Your task to perform on an android device: Empty the shopping cart on amazon. Search for logitech g910 on amazon, select the first entry, add it to the cart, then select checkout. Image 0: 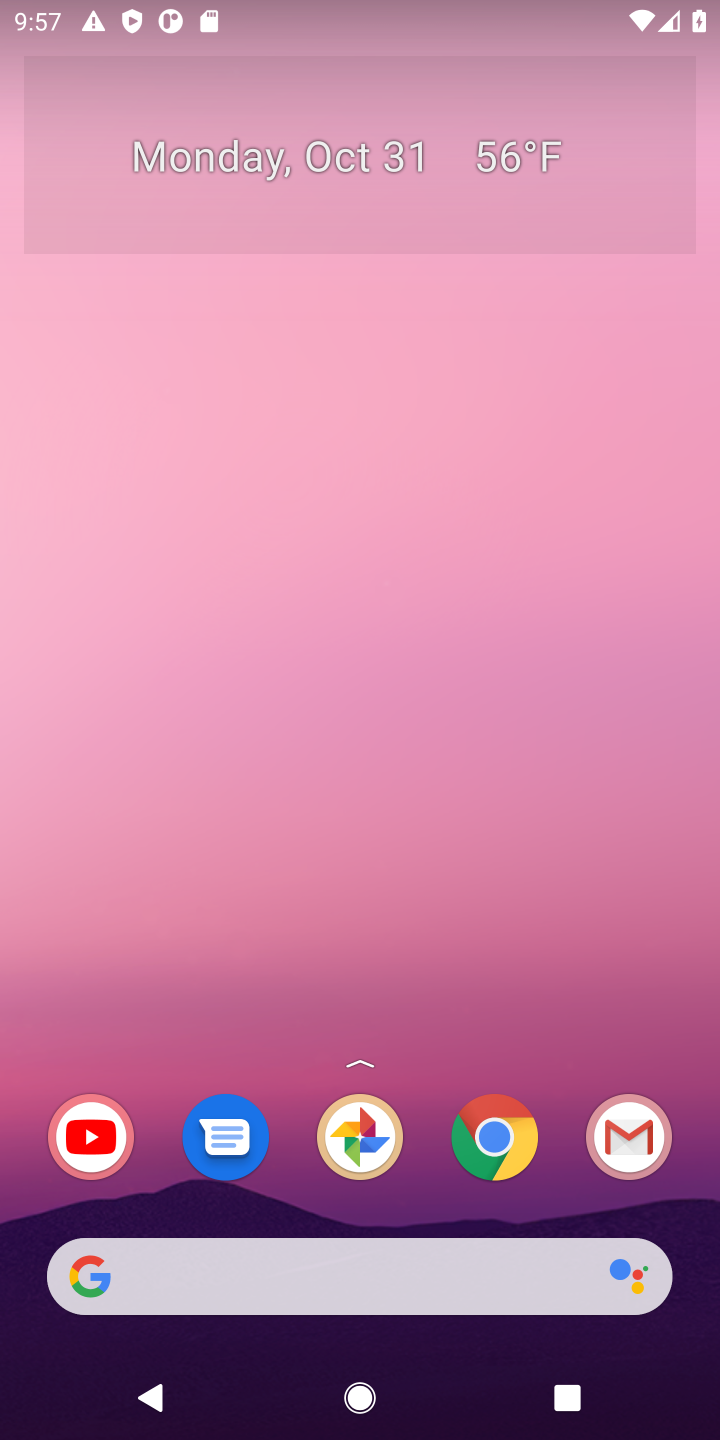
Step 0: click (490, 1140)
Your task to perform on an android device: Empty the shopping cart on amazon. Search for logitech g910 on amazon, select the first entry, add it to the cart, then select checkout. Image 1: 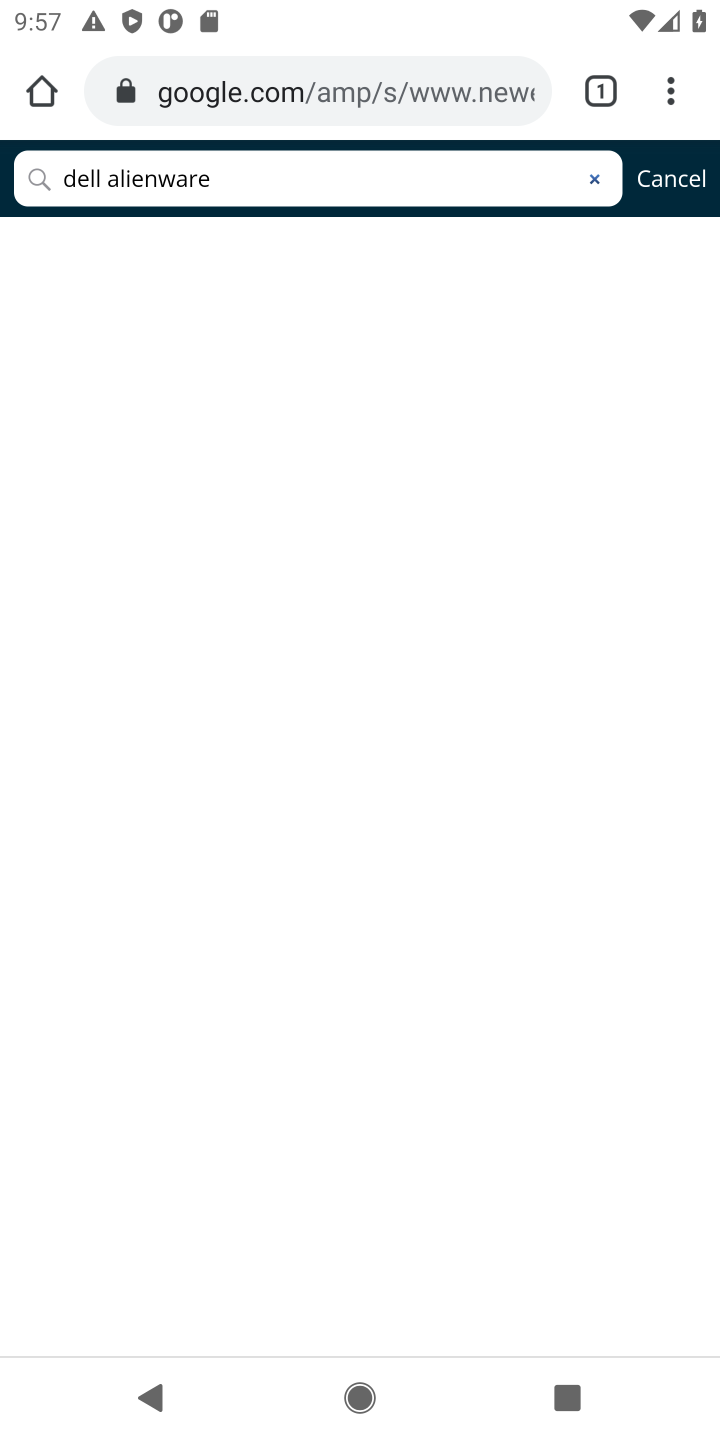
Step 1: click (498, 99)
Your task to perform on an android device: Empty the shopping cart on amazon. Search for logitech g910 on amazon, select the first entry, add it to the cart, then select checkout. Image 2: 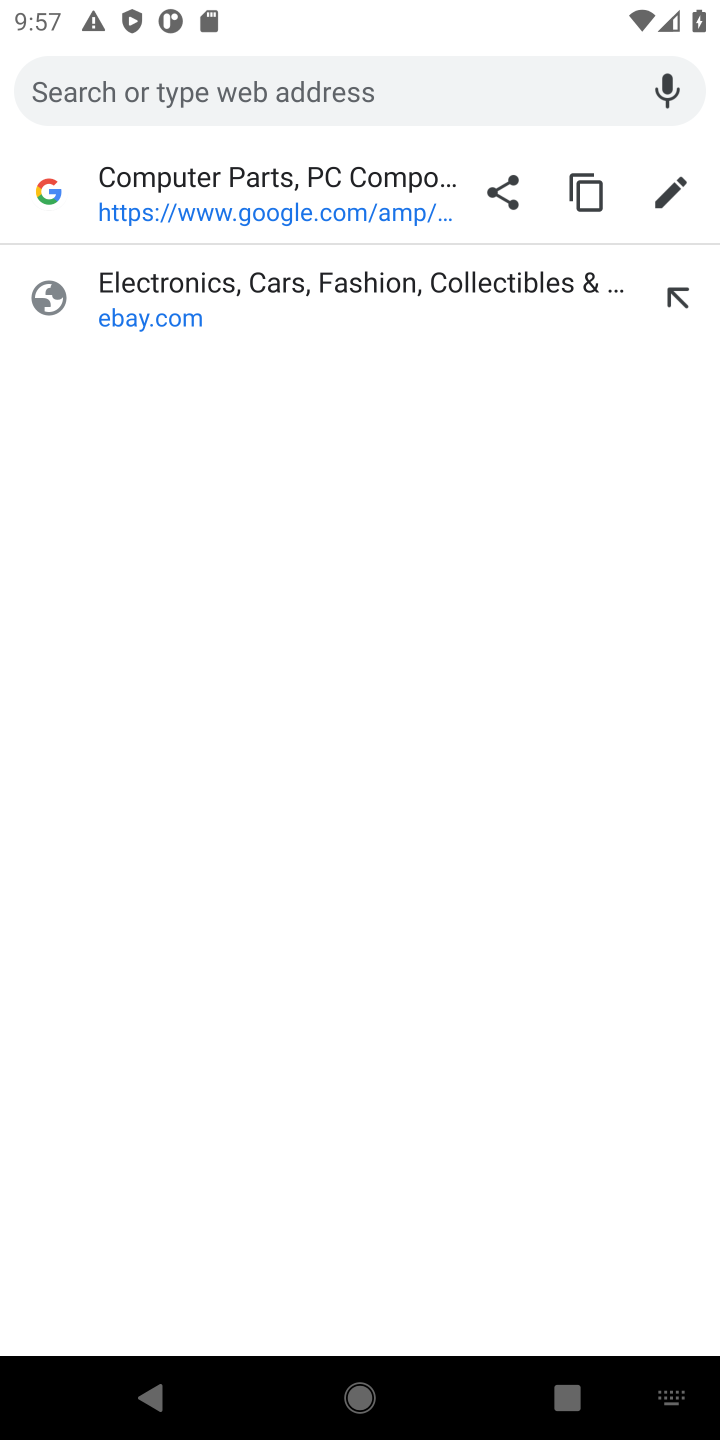
Step 2: type "amazon"
Your task to perform on an android device: Empty the shopping cart on amazon. Search for logitech g910 on amazon, select the first entry, add it to the cart, then select checkout. Image 3: 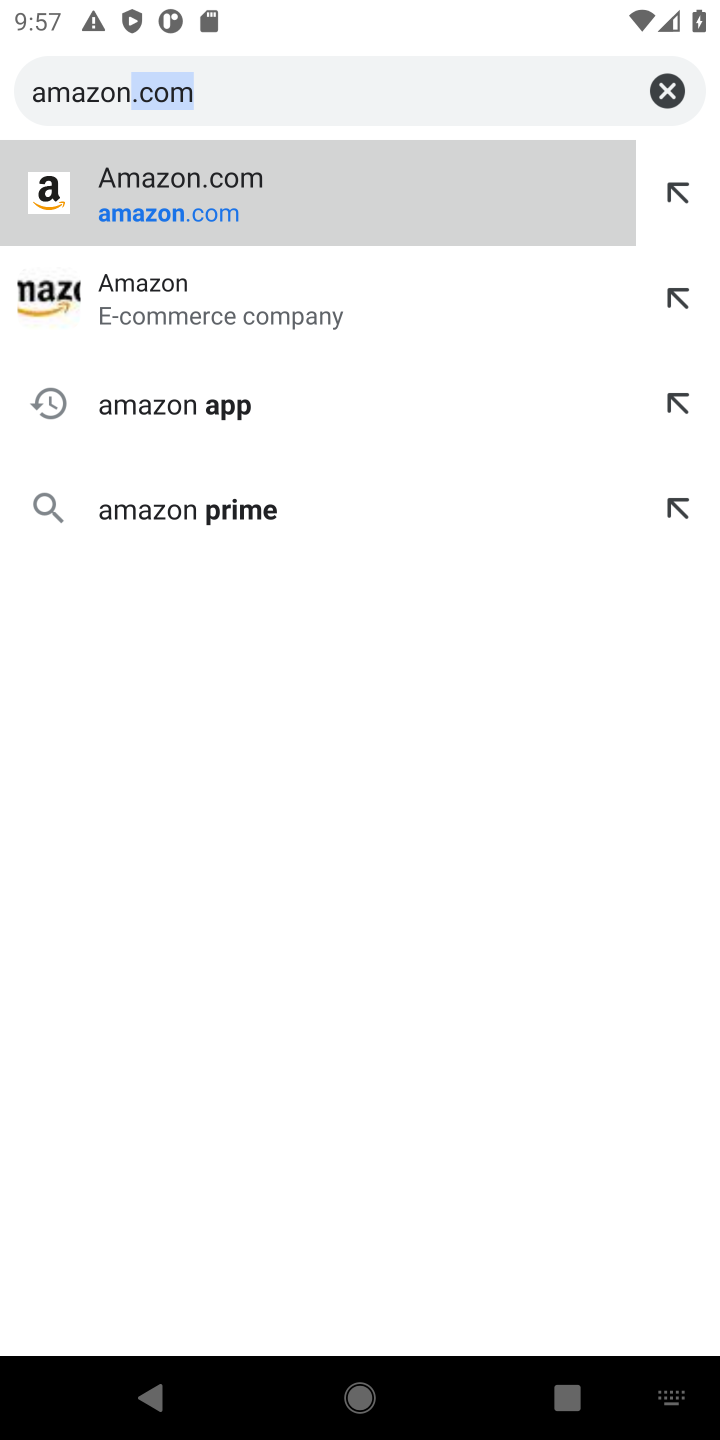
Step 3: click (195, 230)
Your task to perform on an android device: Empty the shopping cart on amazon. Search for logitech g910 on amazon, select the first entry, add it to the cart, then select checkout. Image 4: 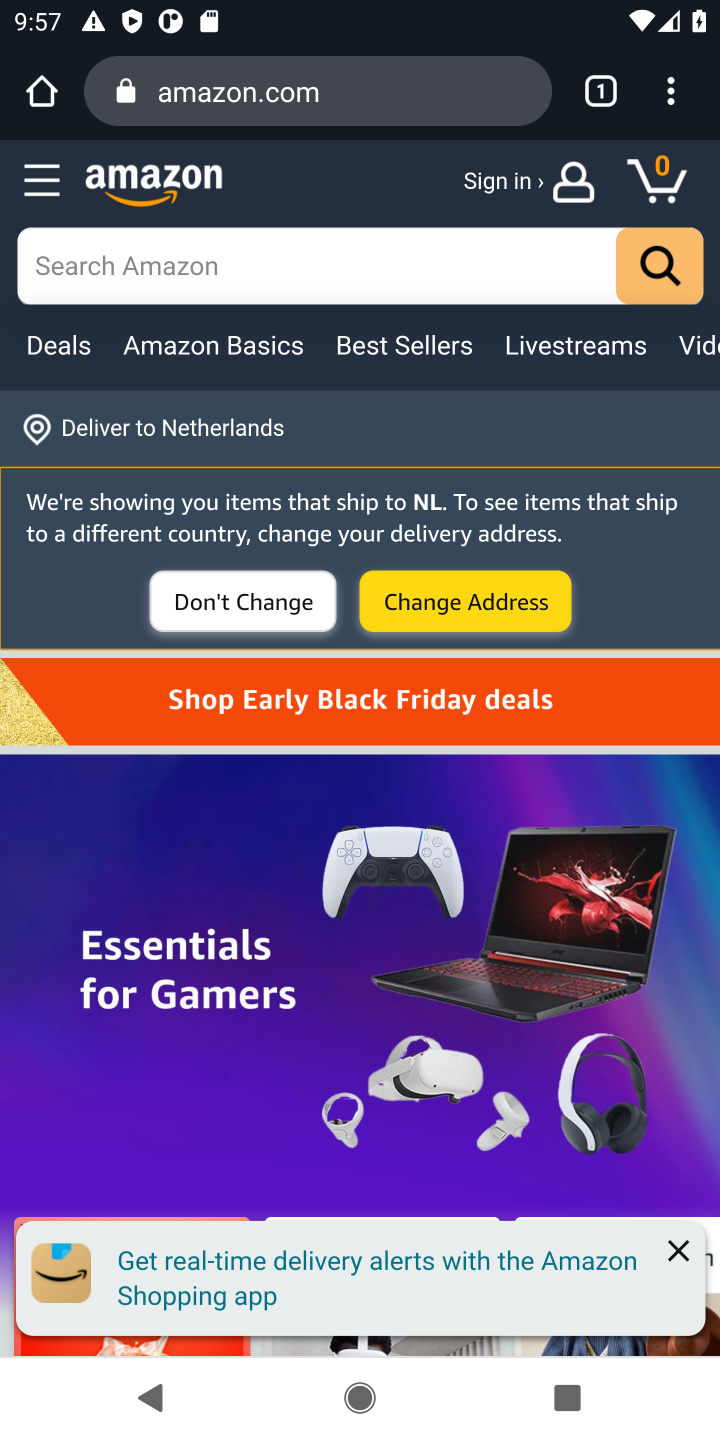
Step 4: click (676, 181)
Your task to perform on an android device: Empty the shopping cart on amazon. Search for logitech g910 on amazon, select the first entry, add it to the cart, then select checkout. Image 5: 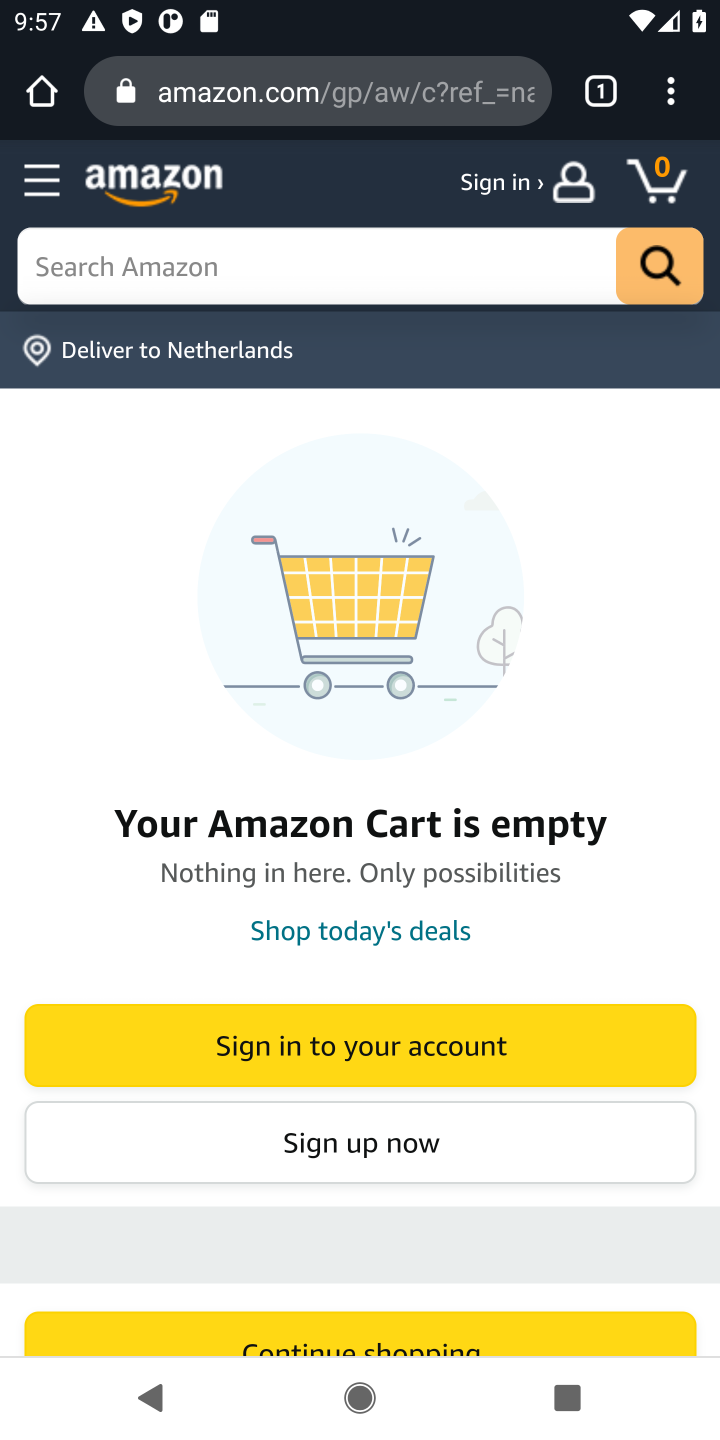
Step 5: click (352, 272)
Your task to perform on an android device: Empty the shopping cart on amazon. Search for logitech g910 on amazon, select the first entry, add it to the cart, then select checkout. Image 6: 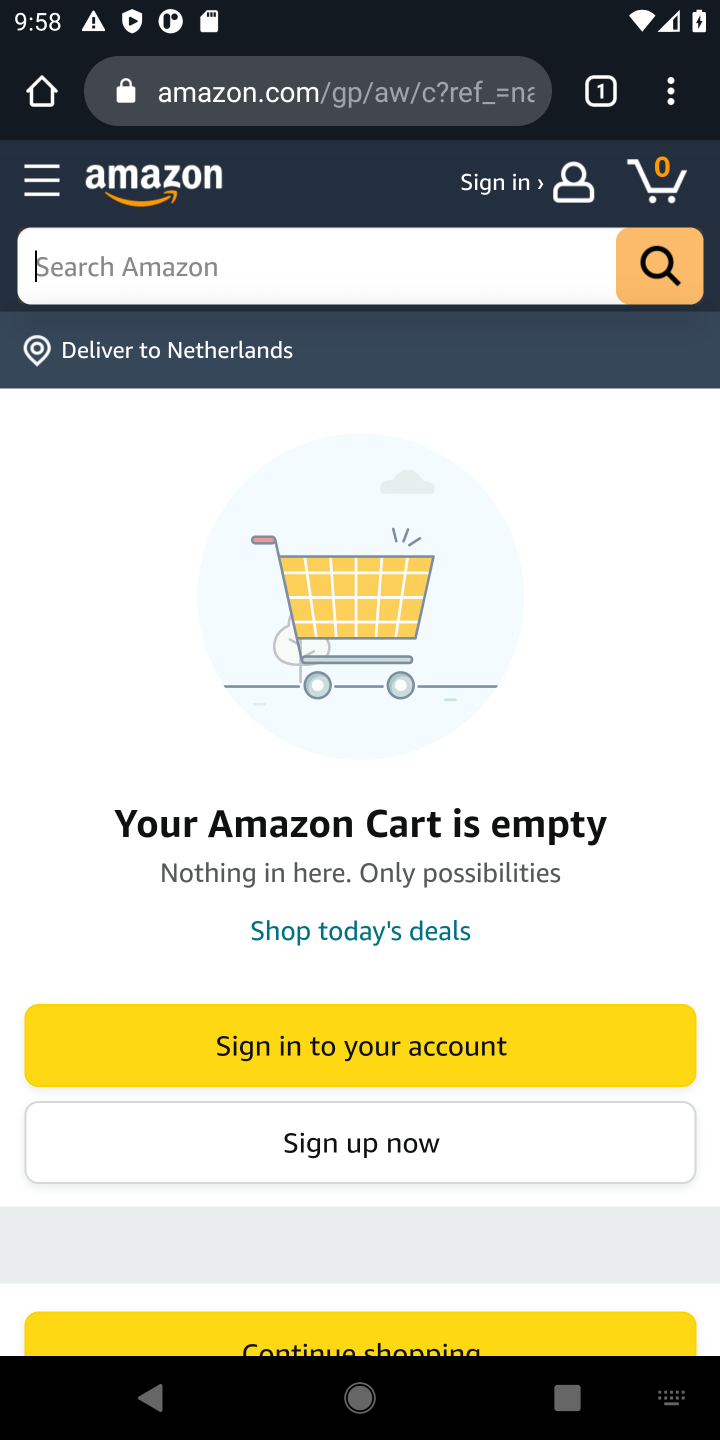
Step 6: type "logitech g910"
Your task to perform on an android device: Empty the shopping cart on amazon. Search for logitech g910 on amazon, select the first entry, add it to the cart, then select checkout. Image 7: 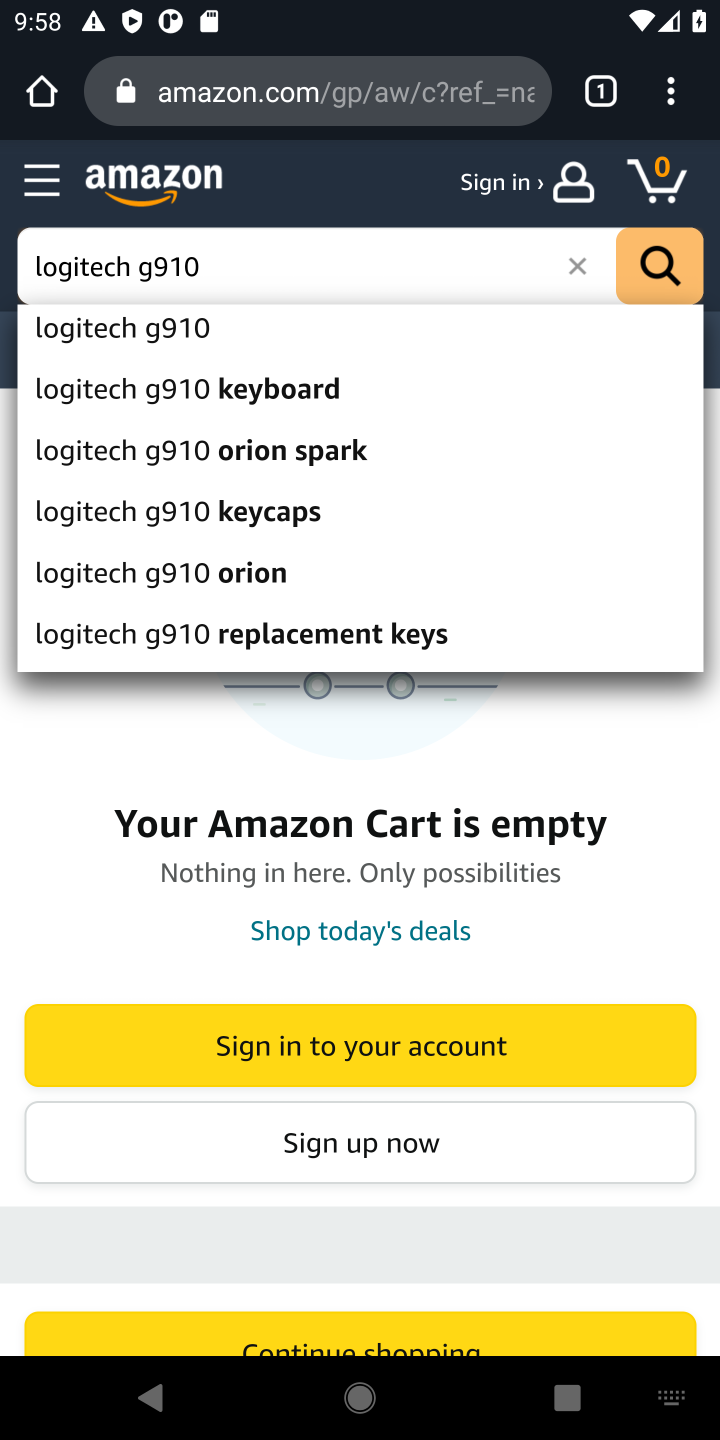
Step 7: click (186, 340)
Your task to perform on an android device: Empty the shopping cart on amazon. Search for logitech g910 on amazon, select the first entry, add it to the cart, then select checkout. Image 8: 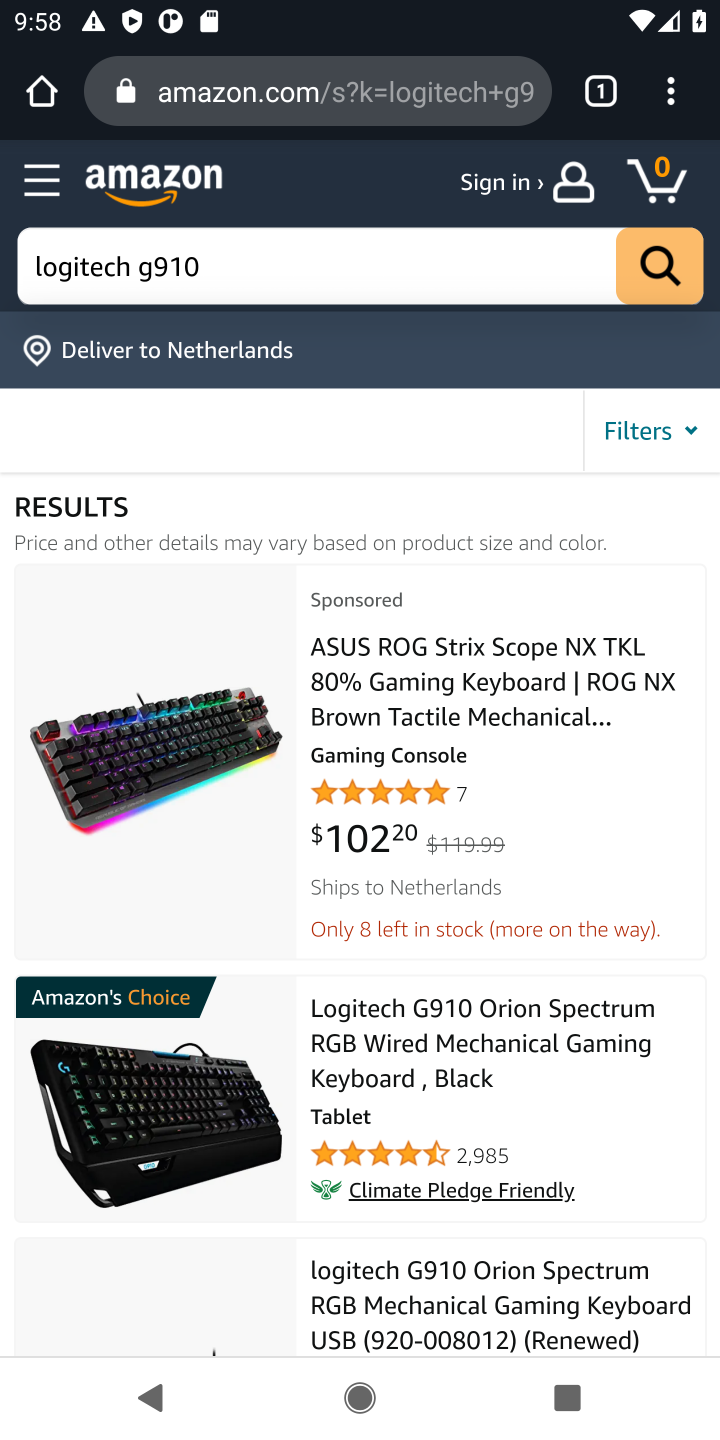
Step 8: click (441, 717)
Your task to perform on an android device: Empty the shopping cart on amazon. Search for logitech g910 on amazon, select the first entry, add it to the cart, then select checkout. Image 9: 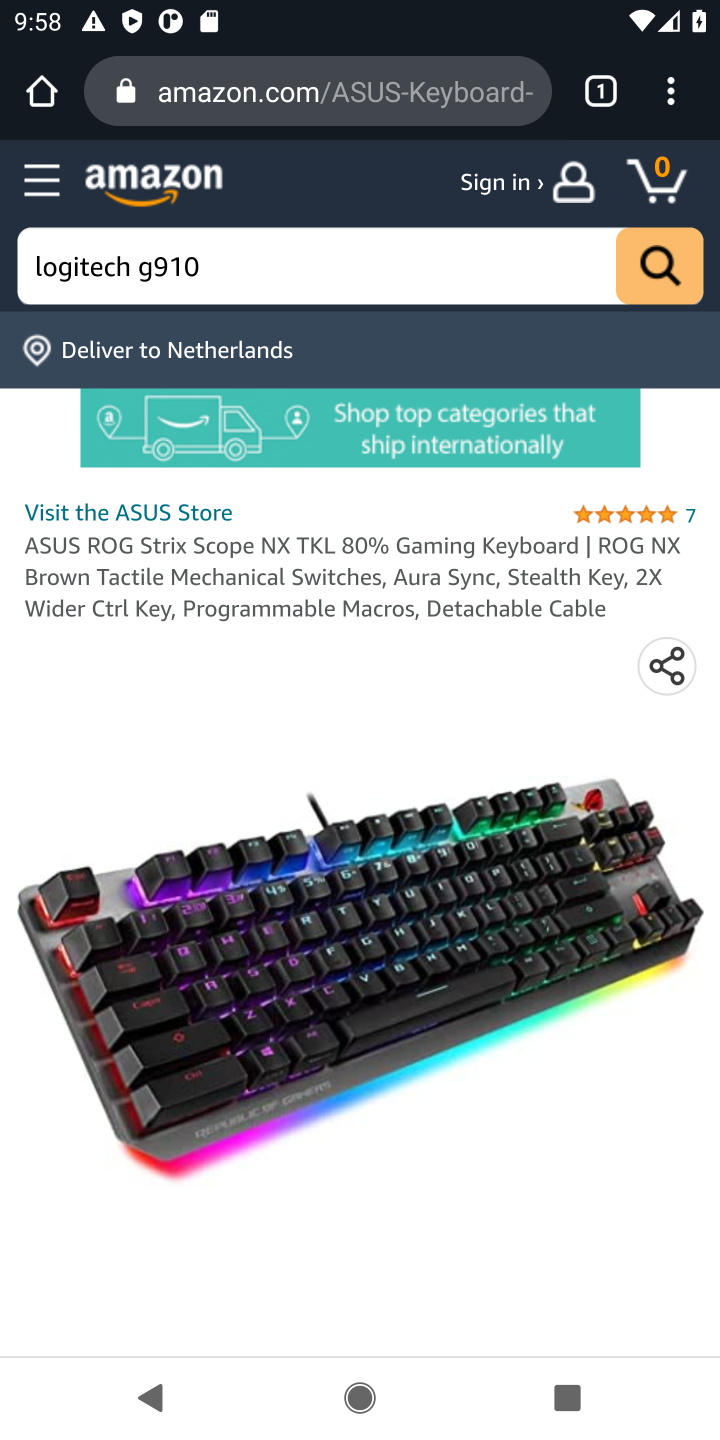
Step 9: drag from (482, 1120) to (526, 481)
Your task to perform on an android device: Empty the shopping cart on amazon. Search for logitech g910 on amazon, select the first entry, add it to the cart, then select checkout. Image 10: 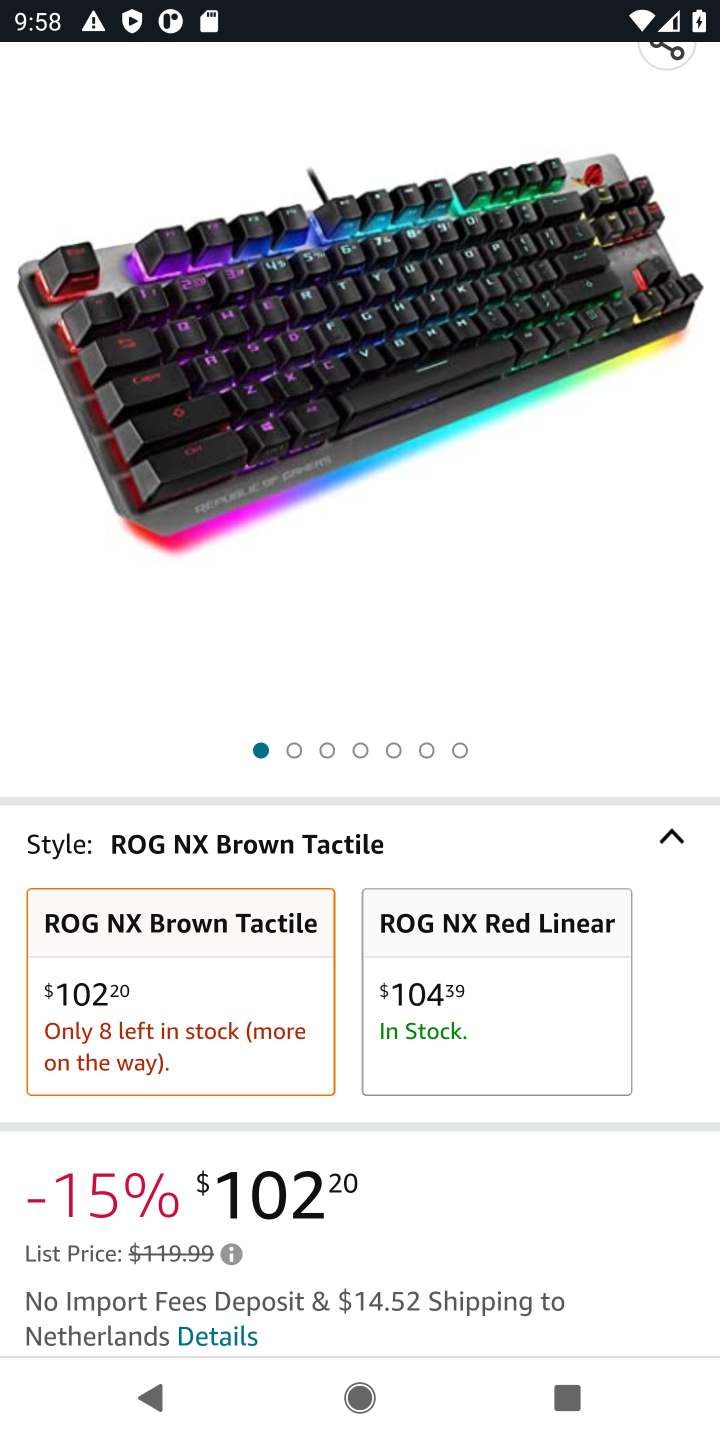
Step 10: drag from (445, 1202) to (489, 621)
Your task to perform on an android device: Empty the shopping cart on amazon. Search for logitech g910 on amazon, select the first entry, add it to the cart, then select checkout. Image 11: 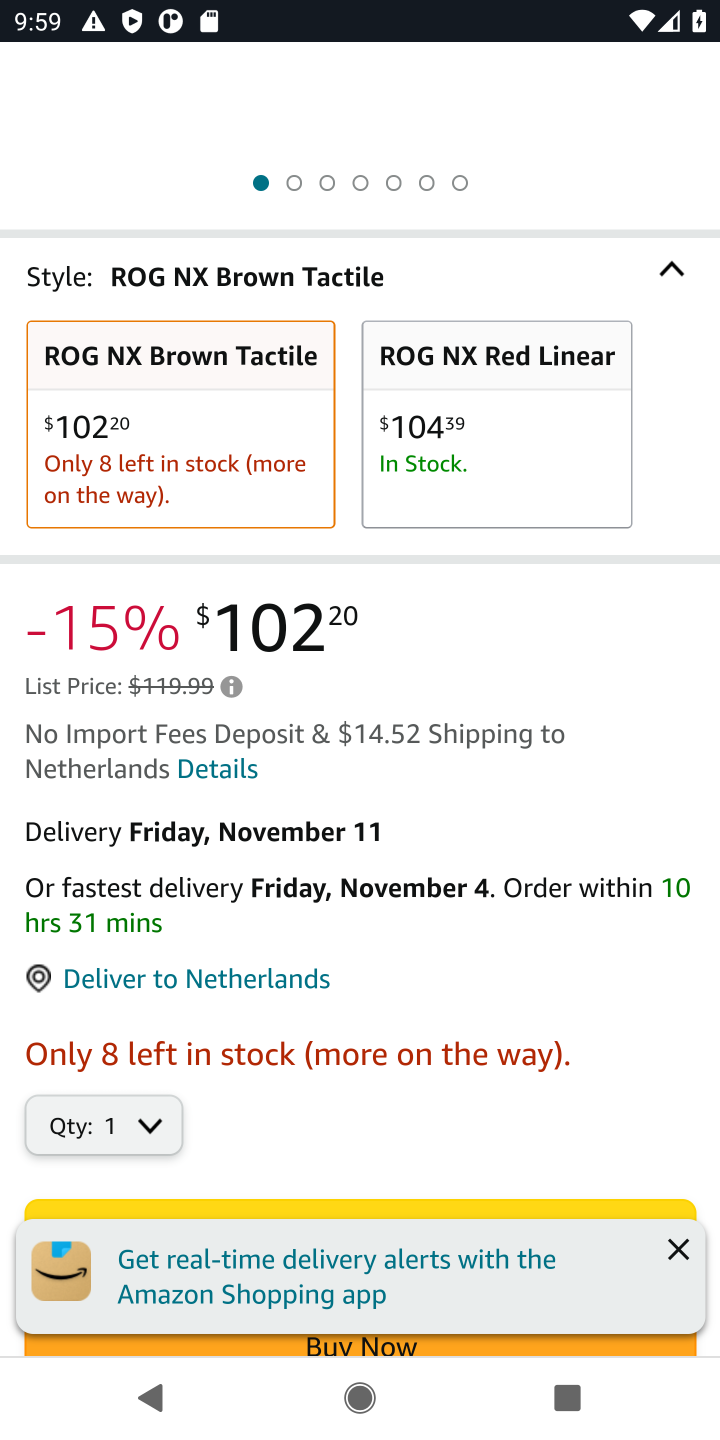
Step 11: drag from (491, 1105) to (513, 675)
Your task to perform on an android device: Empty the shopping cart on amazon. Search for logitech g910 on amazon, select the first entry, add it to the cart, then select checkout. Image 12: 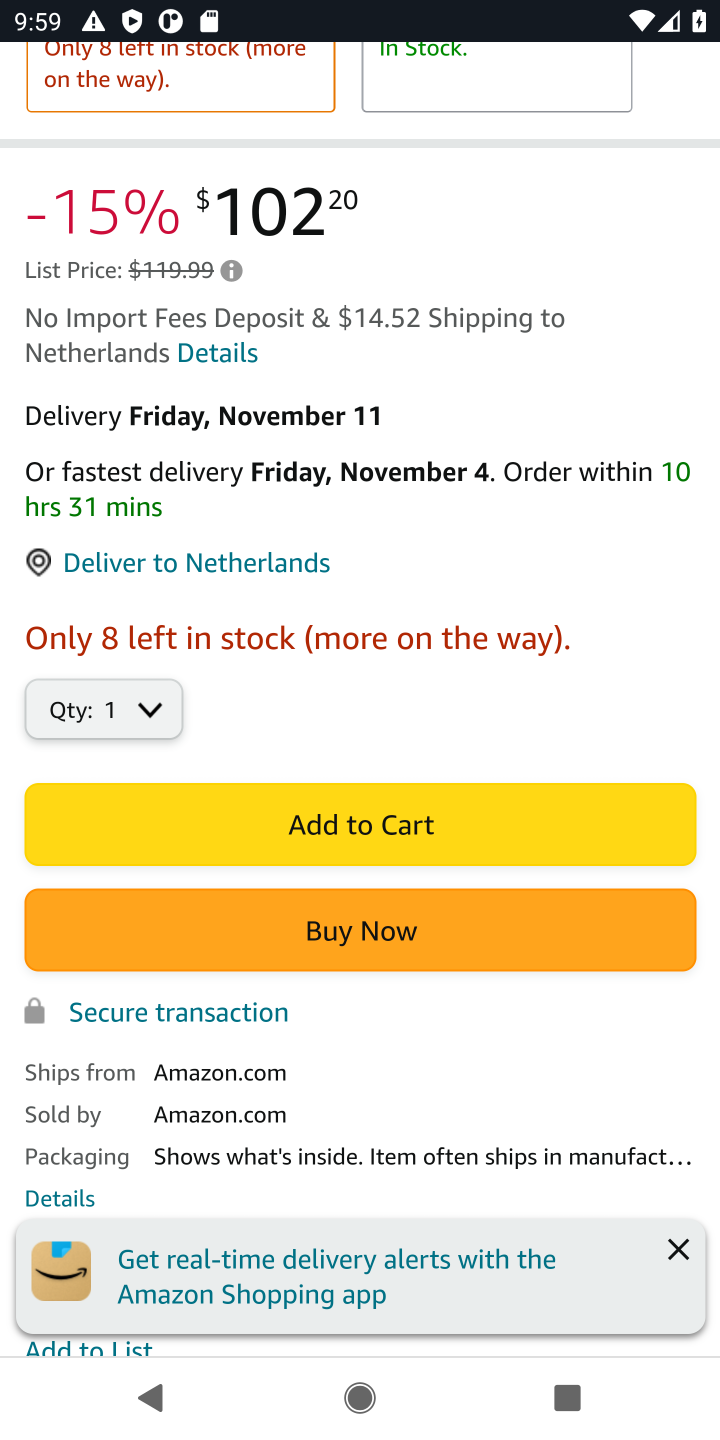
Step 12: click (367, 823)
Your task to perform on an android device: Empty the shopping cart on amazon. Search for logitech g910 on amazon, select the first entry, add it to the cart, then select checkout. Image 13: 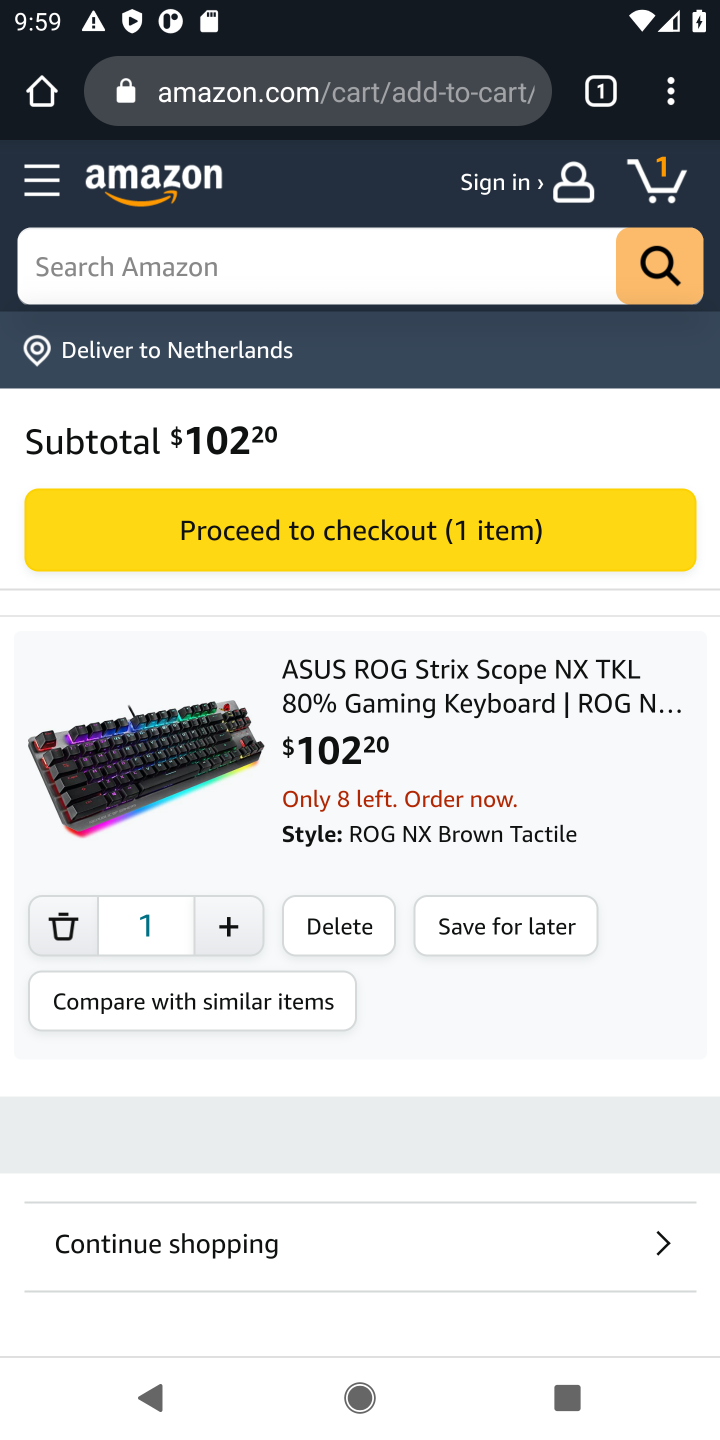
Step 13: click (339, 531)
Your task to perform on an android device: Empty the shopping cart on amazon. Search for logitech g910 on amazon, select the first entry, add it to the cart, then select checkout. Image 14: 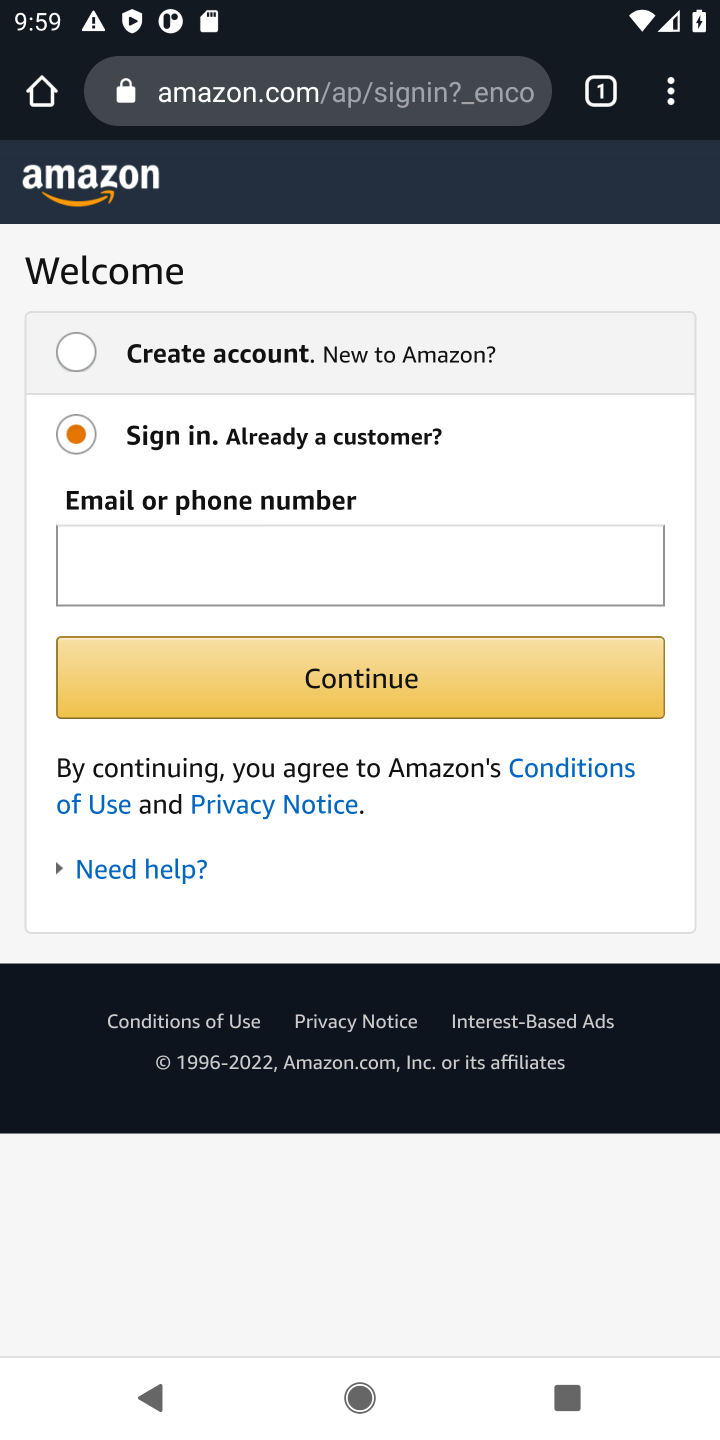
Step 14: task complete